Your task to perform on an android device: Search for a tv stand on Ikea Image 0: 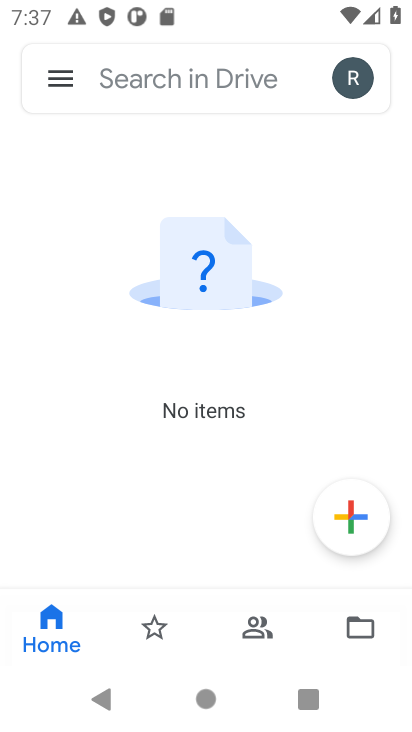
Step 0: press home button
Your task to perform on an android device: Search for a tv stand on Ikea Image 1: 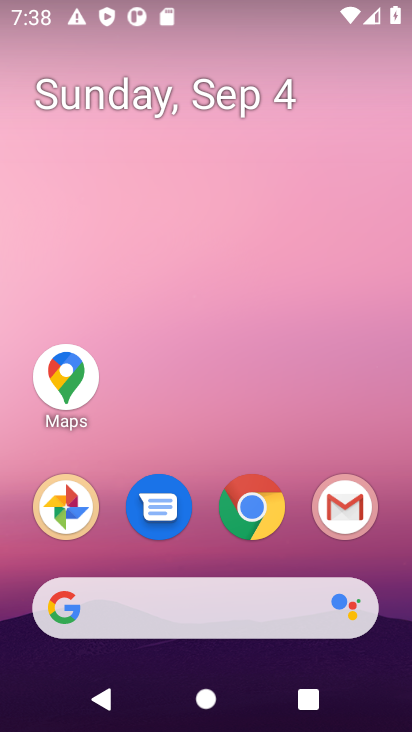
Step 1: click (263, 499)
Your task to perform on an android device: Search for a tv stand on Ikea Image 2: 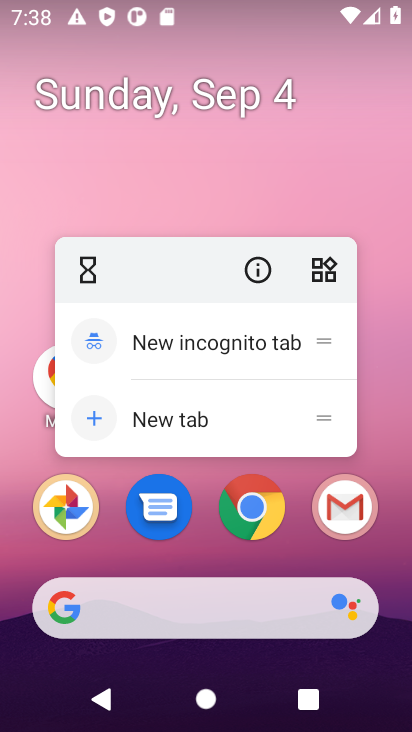
Step 2: click (263, 499)
Your task to perform on an android device: Search for a tv stand on Ikea Image 3: 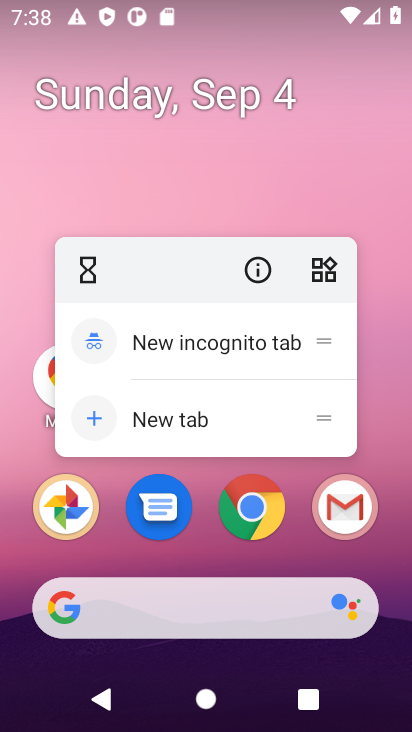
Step 3: click (247, 516)
Your task to perform on an android device: Search for a tv stand on Ikea Image 4: 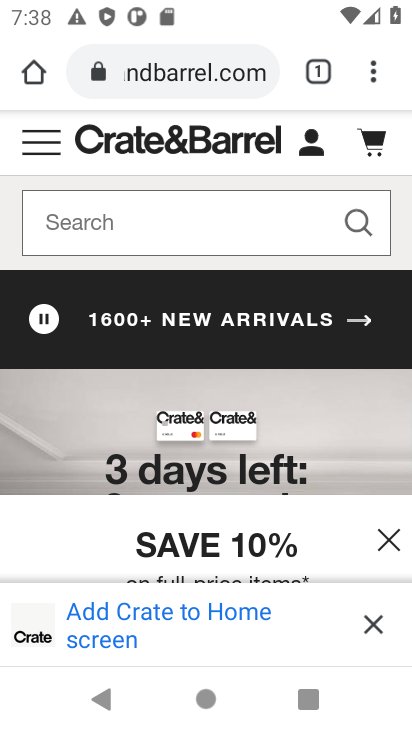
Step 4: click (199, 81)
Your task to perform on an android device: Search for a tv stand on Ikea Image 5: 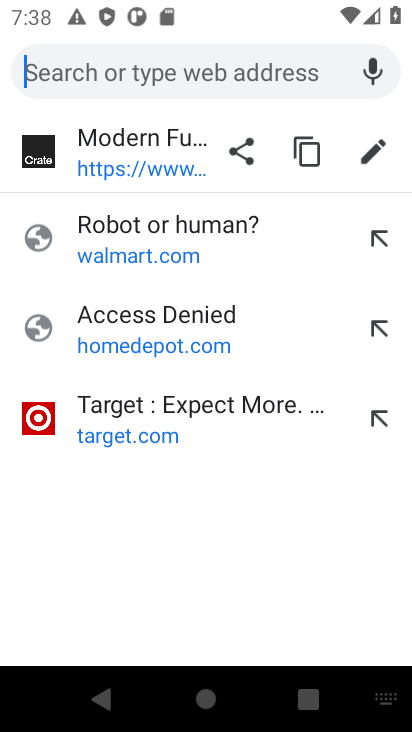
Step 5: type "ikea"
Your task to perform on an android device: Search for a tv stand on Ikea Image 6: 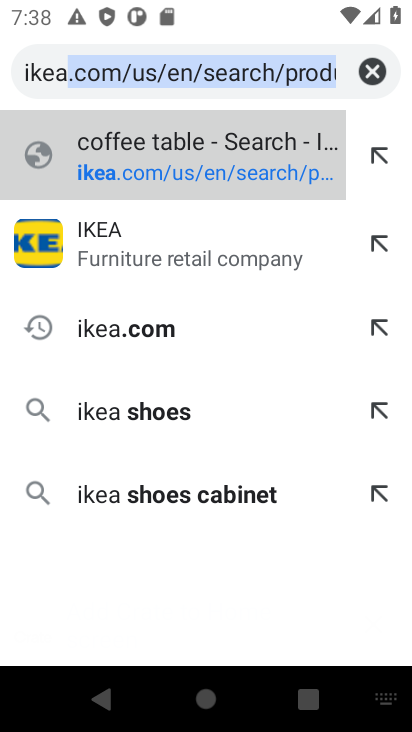
Step 6: click (154, 255)
Your task to perform on an android device: Search for a tv stand on Ikea Image 7: 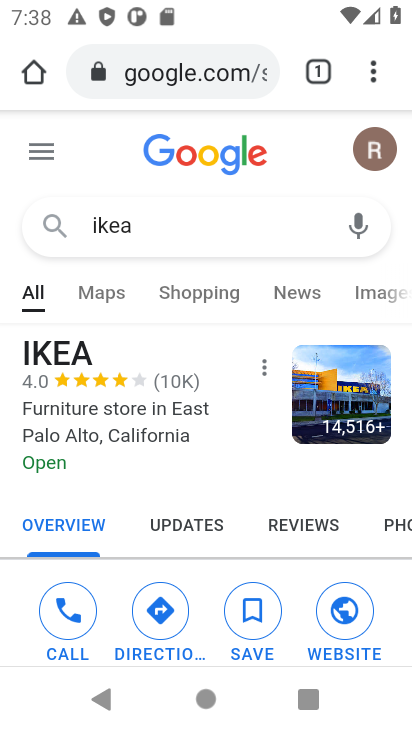
Step 7: drag from (128, 3) to (206, 343)
Your task to perform on an android device: Search for a tv stand on Ikea Image 8: 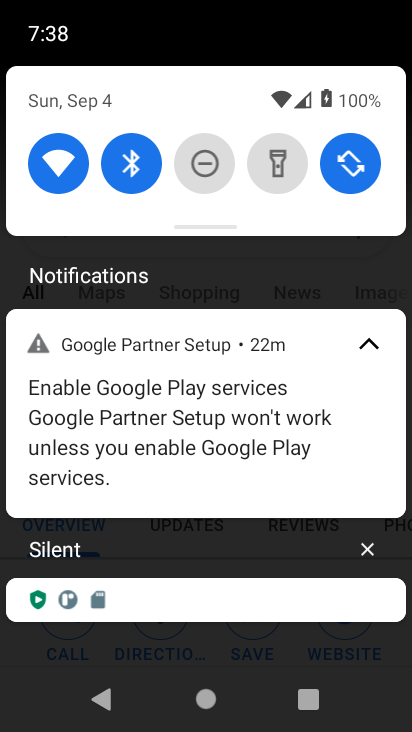
Step 8: press back button
Your task to perform on an android device: Search for a tv stand on Ikea Image 9: 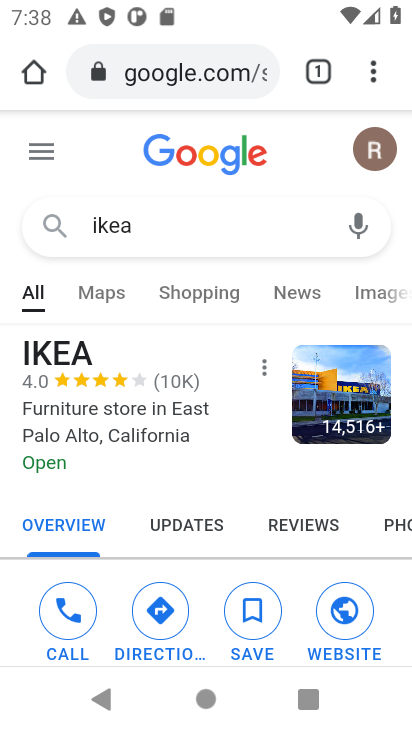
Step 9: click (343, 623)
Your task to perform on an android device: Search for a tv stand on Ikea Image 10: 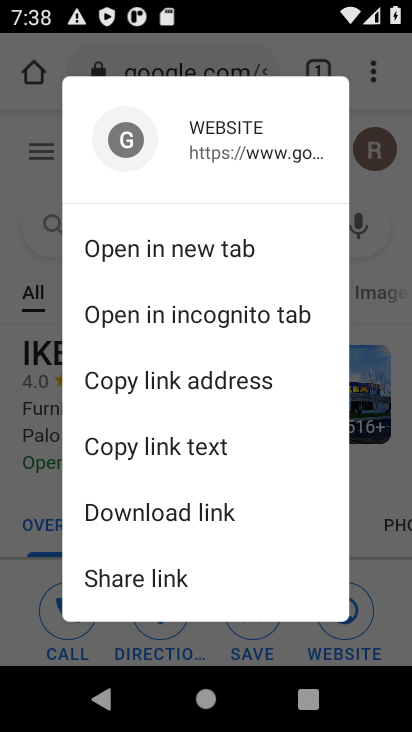
Step 10: click (375, 644)
Your task to perform on an android device: Search for a tv stand on Ikea Image 11: 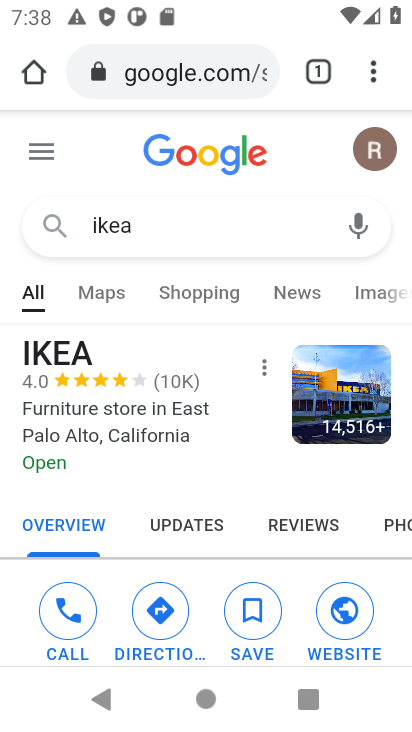
Step 11: click (362, 622)
Your task to perform on an android device: Search for a tv stand on Ikea Image 12: 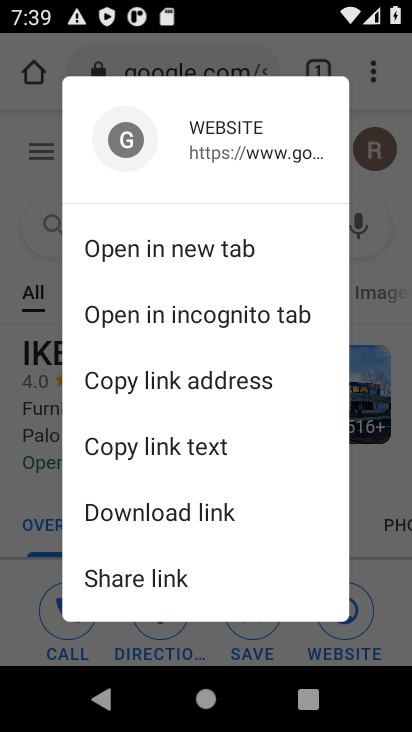
Step 12: click (367, 634)
Your task to perform on an android device: Search for a tv stand on Ikea Image 13: 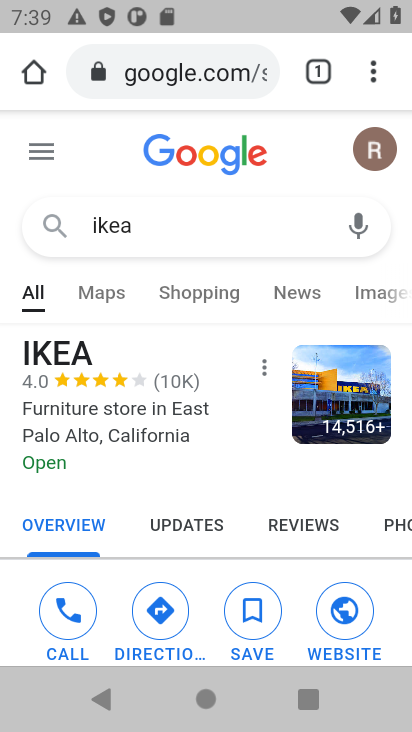
Step 13: click (351, 622)
Your task to perform on an android device: Search for a tv stand on Ikea Image 14: 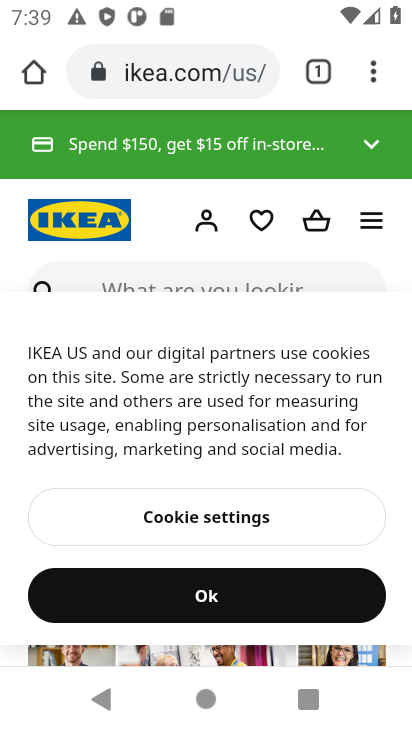
Step 14: click (185, 292)
Your task to perform on an android device: Search for a tv stand on Ikea Image 15: 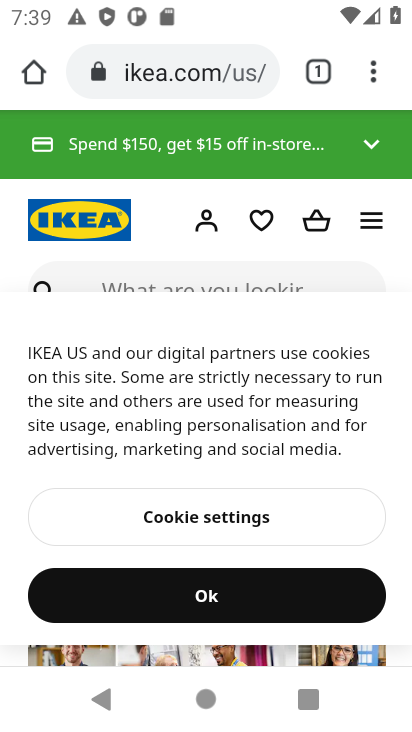
Step 15: click (220, 596)
Your task to perform on an android device: Search for a tv stand on Ikea Image 16: 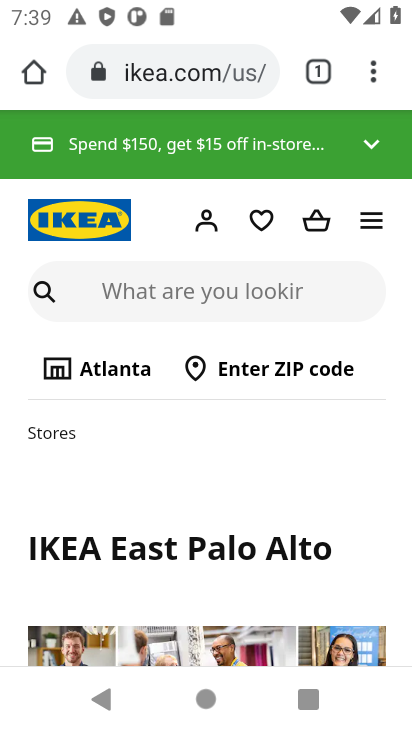
Step 16: click (174, 285)
Your task to perform on an android device: Search for a tv stand on Ikea Image 17: 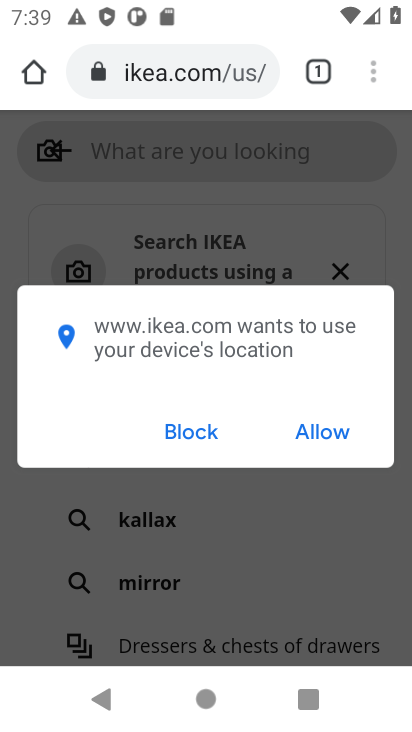
Step 17: type "tv stand"
Your task to perform on an android device: Search for a tv stand on Ikea Image 18: 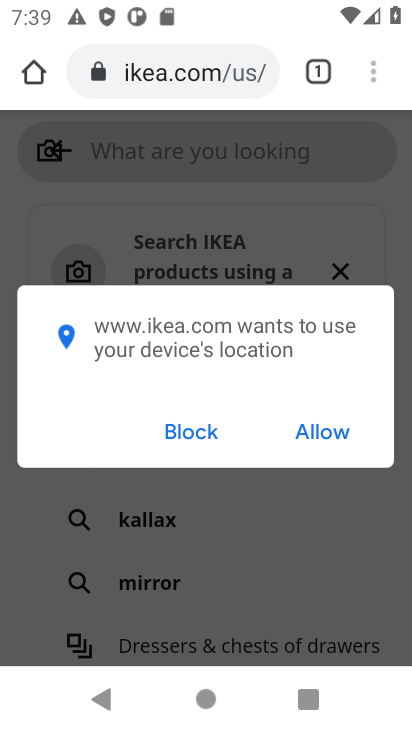
Step 18: click (312, 433)
Your task to perform on an android device: Search for a tv stand on Ikea Image 19: 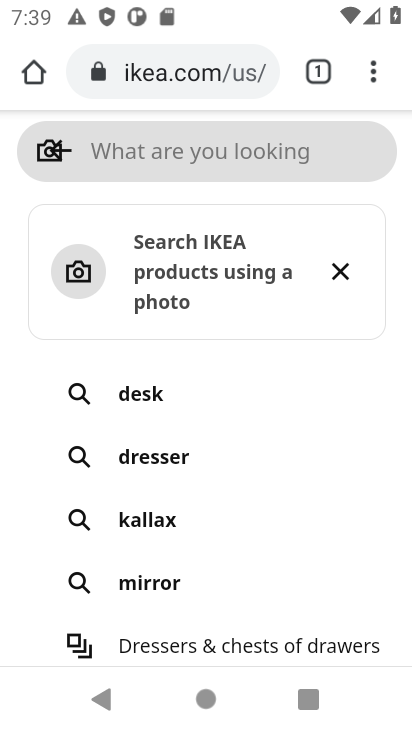
Step 19: type "tv stand"
Your task to perform on an android device: Search for a tv stand on Ikea Image 20: 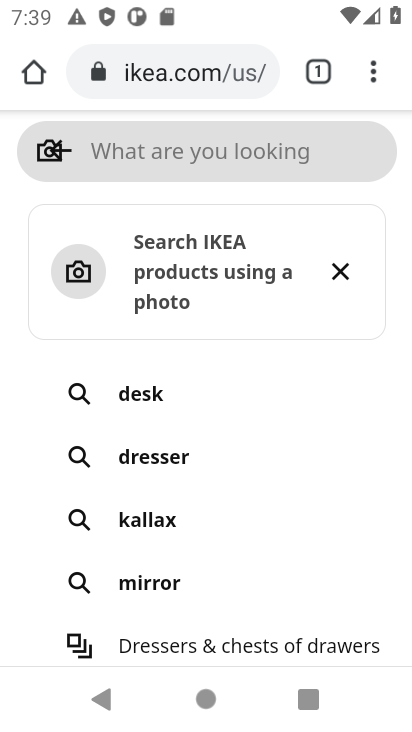
Step 20: type "tv stand"
Your task to perform on an android device: Search for a tv stand on Ikea Image 21: 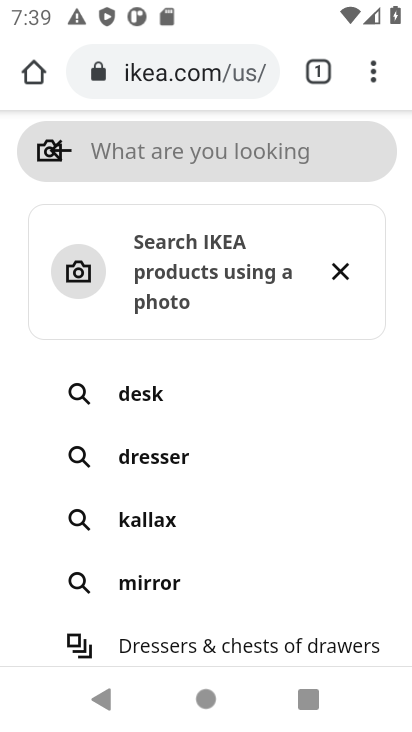
Step 21: click (340, 161)
Your task to perform on an android device: Search for a tv stand on Ikea Image 22: 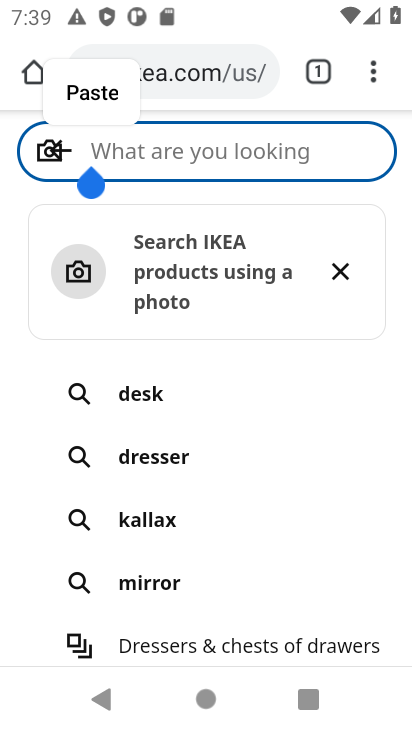
Step 22: type "tv stand"
Your task to perform on an android device: Search for a tv stand on Ikea Image 23: 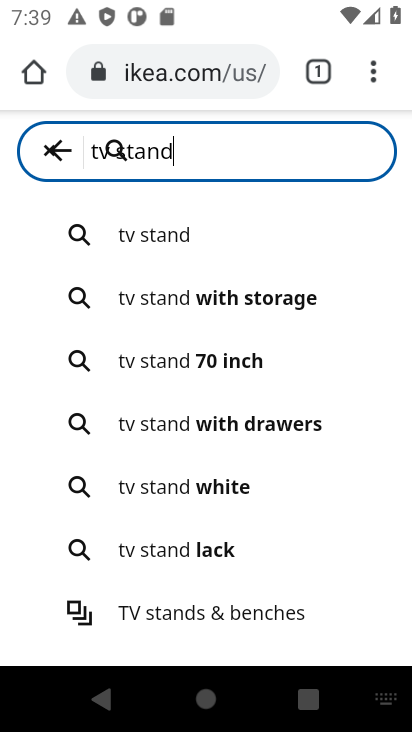
Step 23: click (255, 236)
Your task to perform on an android device: Search for a tv stand on Ikea Image 24: 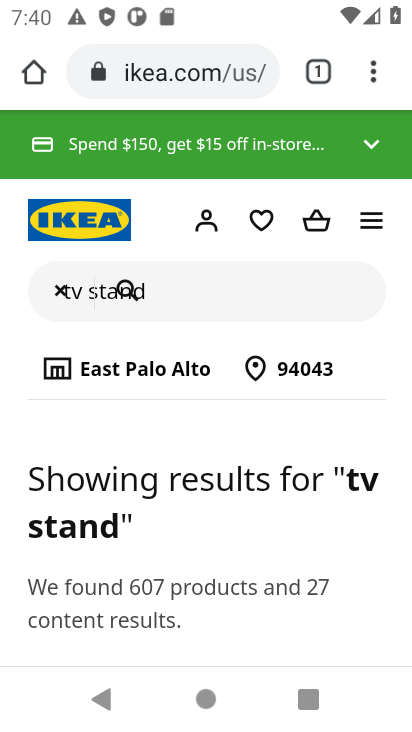
Step 24: task complete